Your task to perform on an android device: Is it going to rain this weekend? Image 0: 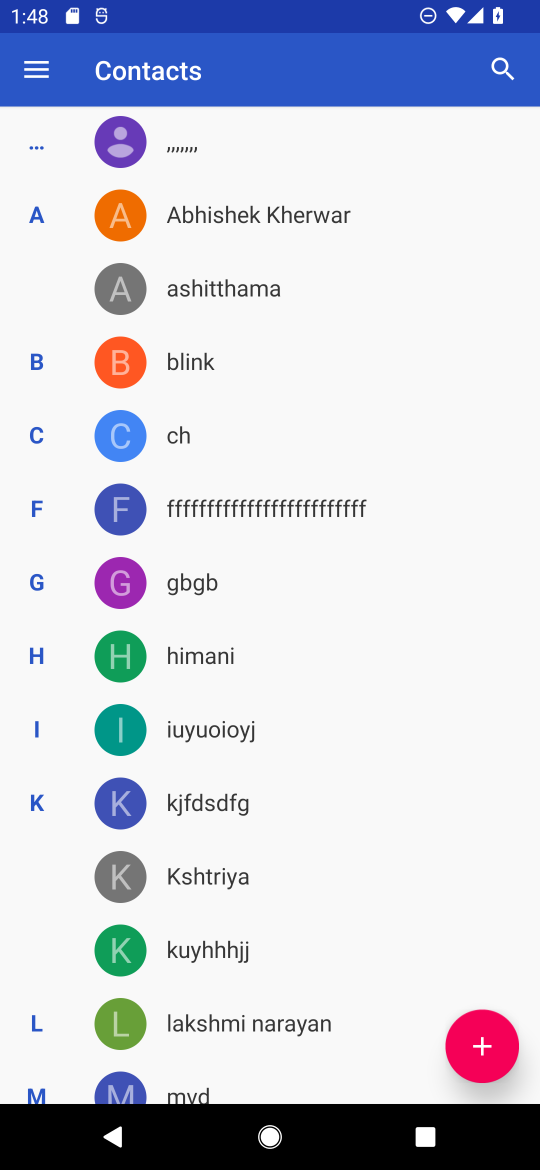
Step 0: press back button
Your task to perform on an android device: Is it going to rain this weekend? Image 1: 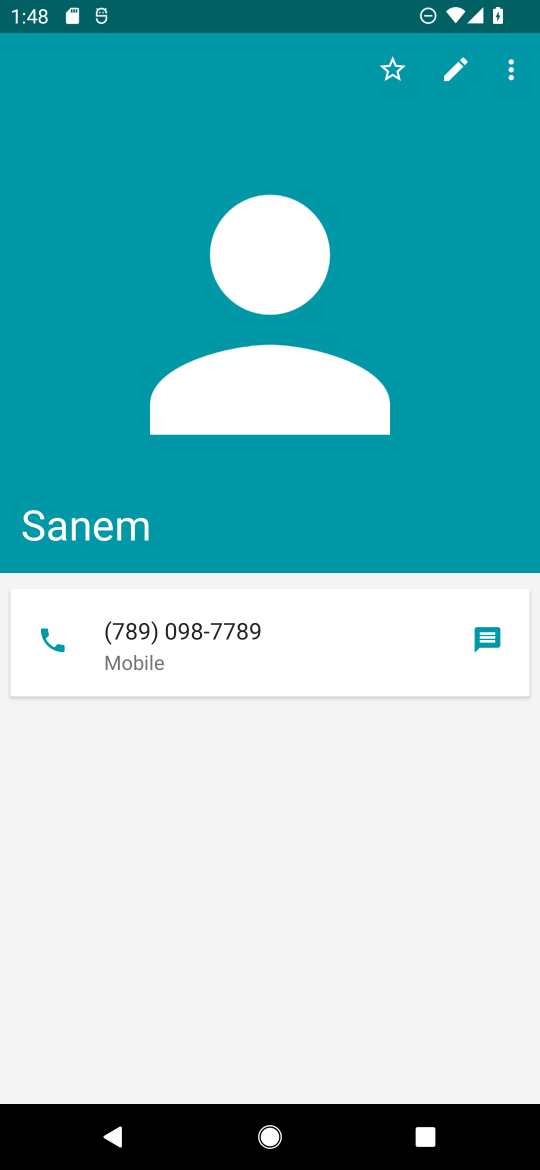
Step 1: press home button
Your task to perform on an android device: Is it going to rain this weekend? Image 2: 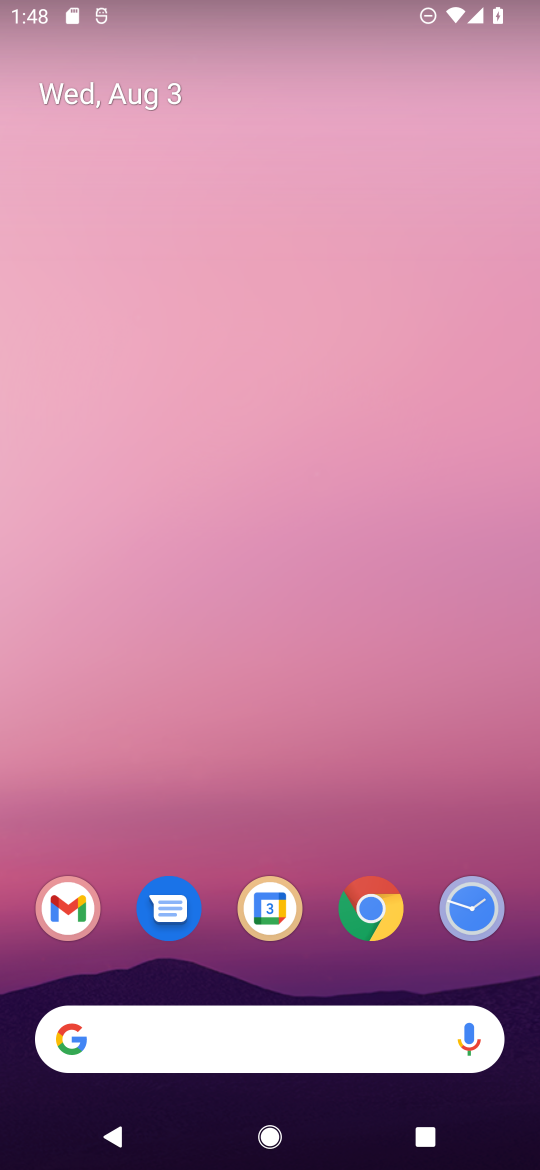
Step 2: click (259, 212)
Your task to perform on an android device: Is it going to rain this weekend? Image 3: 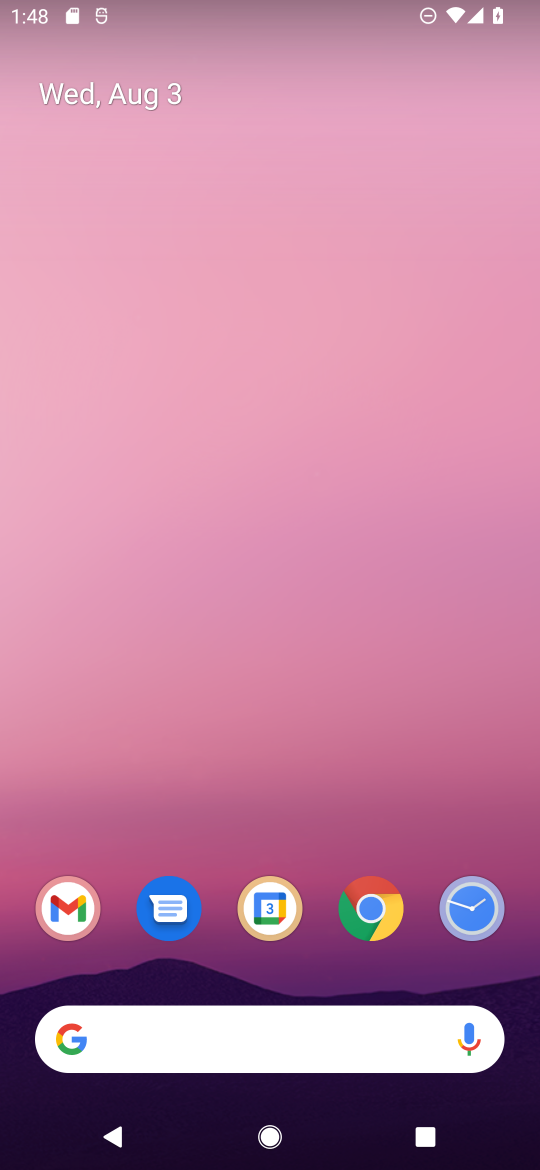
Step 3: drag from (229, 801) to (231, 245)
Your task to perform on an android device: Is it going to rain this weekend? Image 4: 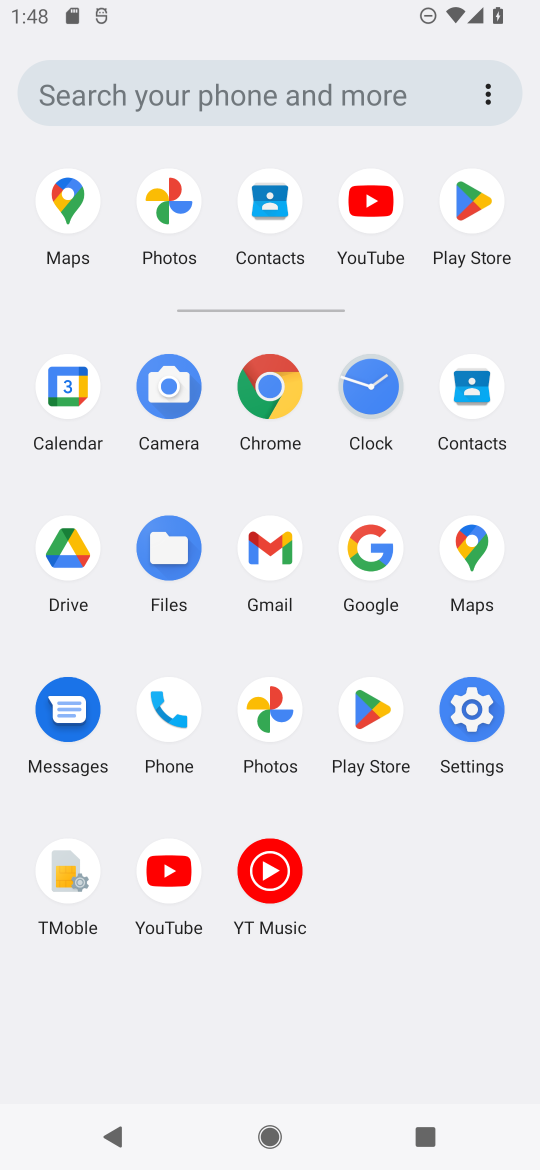
Step 4: click (368, 564)
Your task to perform on an android device: Is it going to rain this weekend? Image 5: 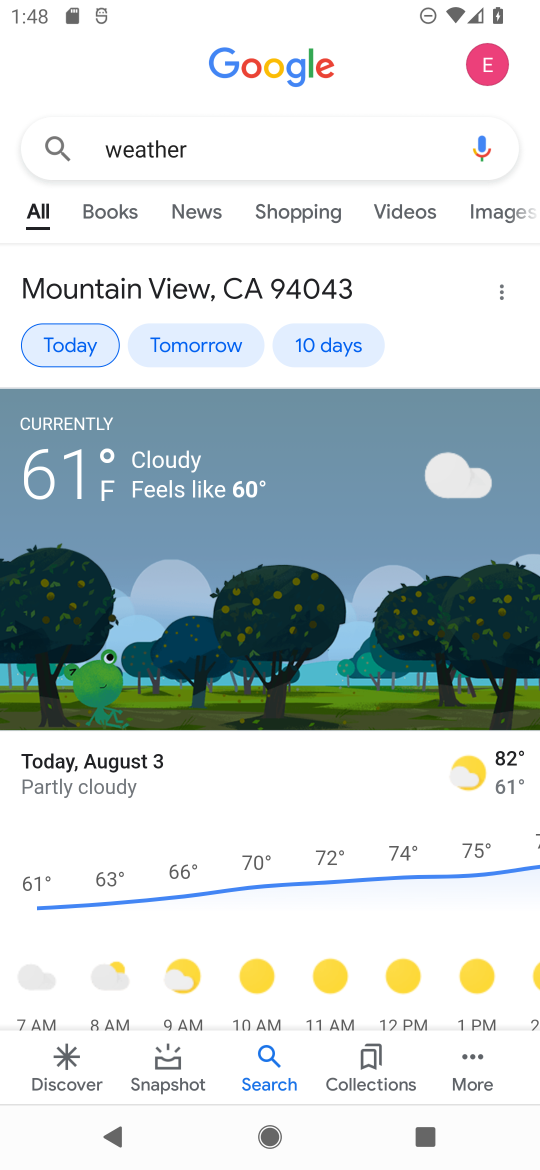
Step 5: click (339, 337)
Your task to perform on an android device: Is it going to rain this weekend? Image 6: 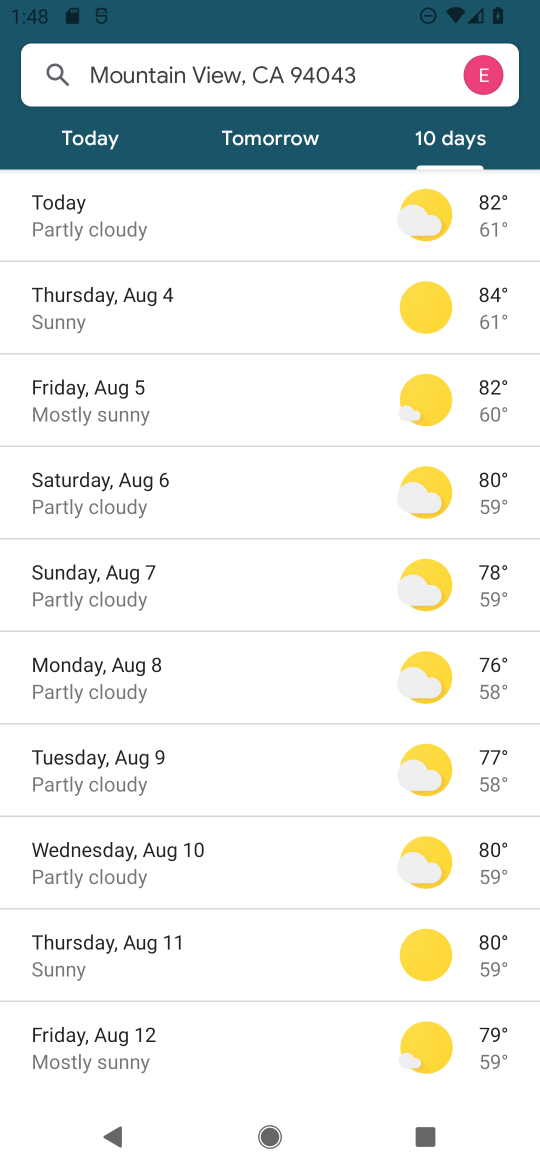
Step 6: task complete